Your task to perform on an android device: open wifi settings Image 0: 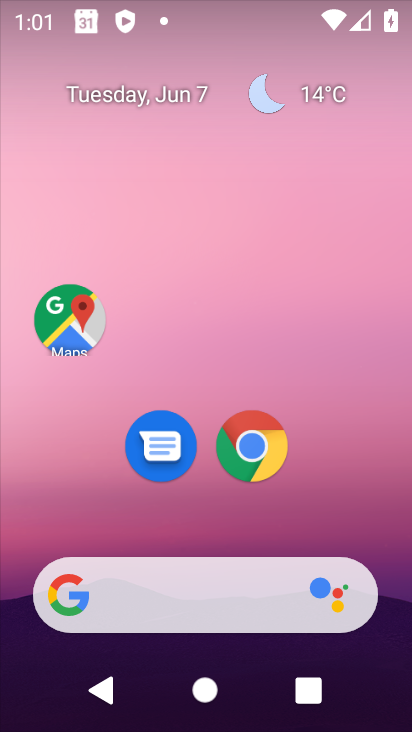
Step 0: drag from (356, 488) to (286, 41)
Your task to perform on an android device: open wifi settings Image 1: 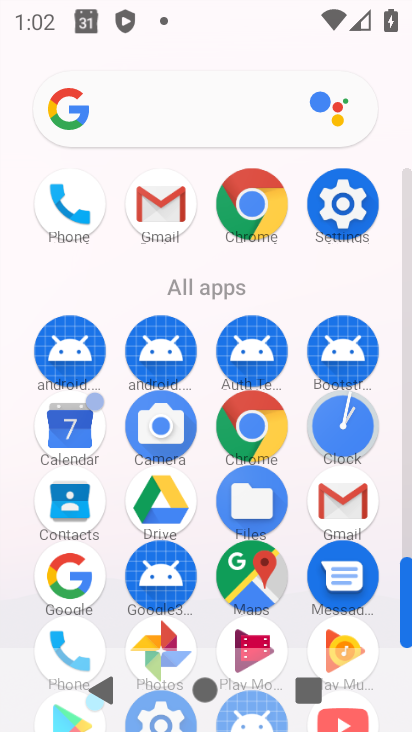
Step 1: drag from (25, 535) to (20, 264)
Your task to perform on an android device: open wifi settings Image 2: 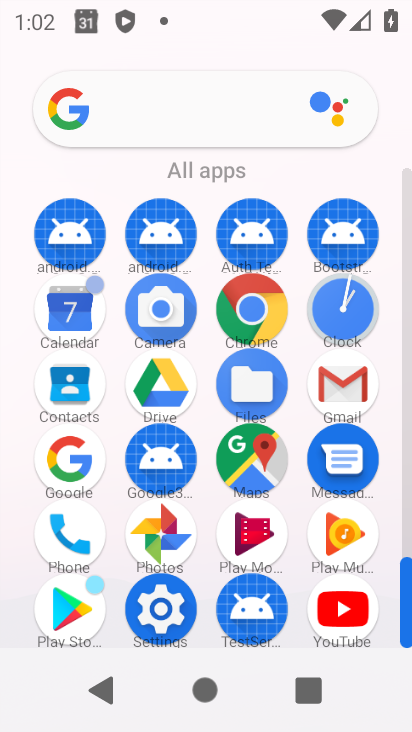
Step 2: click (163, 610)
Your task to perform on an android device: open wifi settings Image 3: 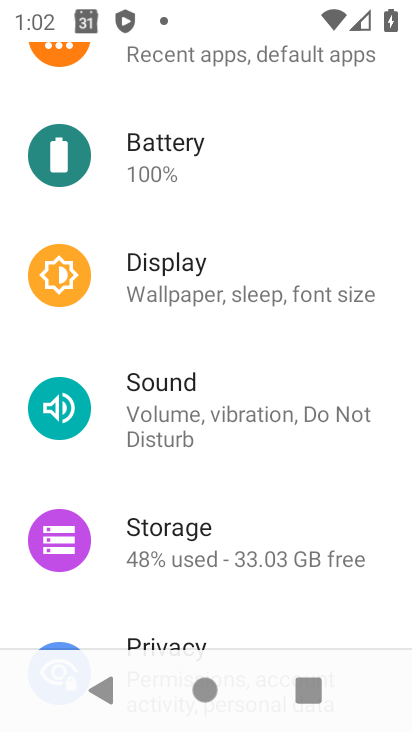
Step 3: drag from (267, 115) to (272, 664)
Your task to perform on an android device: open wifi settings Image 4: 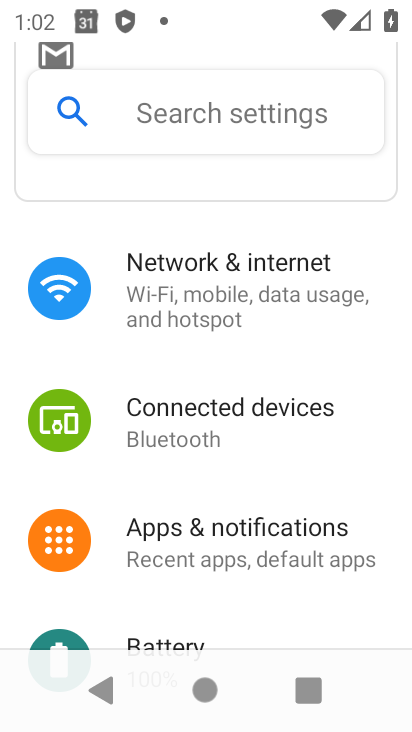
Step 4: click (210, 246)
Your task to perform on an android device: open wifi settings Image 5: 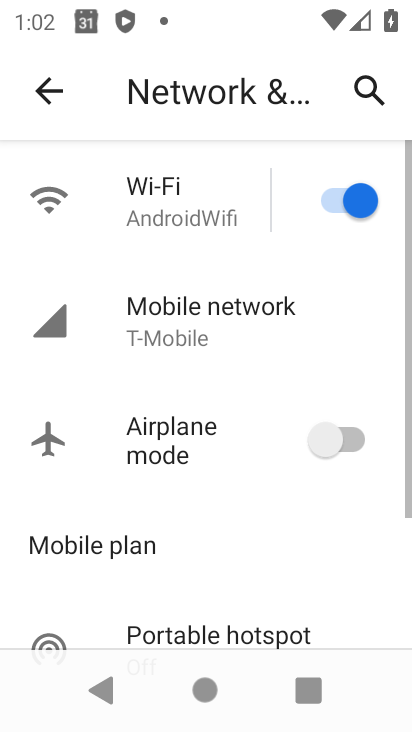
Step 5: click (199, 200)
Your task to perform on an android device: open wifi settings Image 6: 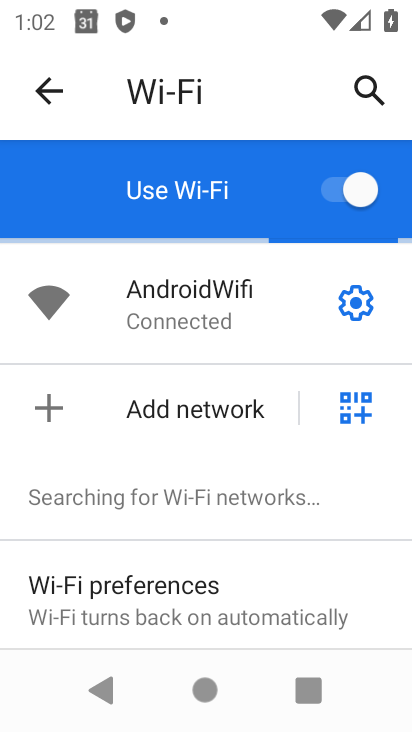
Step 6: task complete